Your task to perform on an android device: How do I get to the nearest Sprint Store? Image 0: 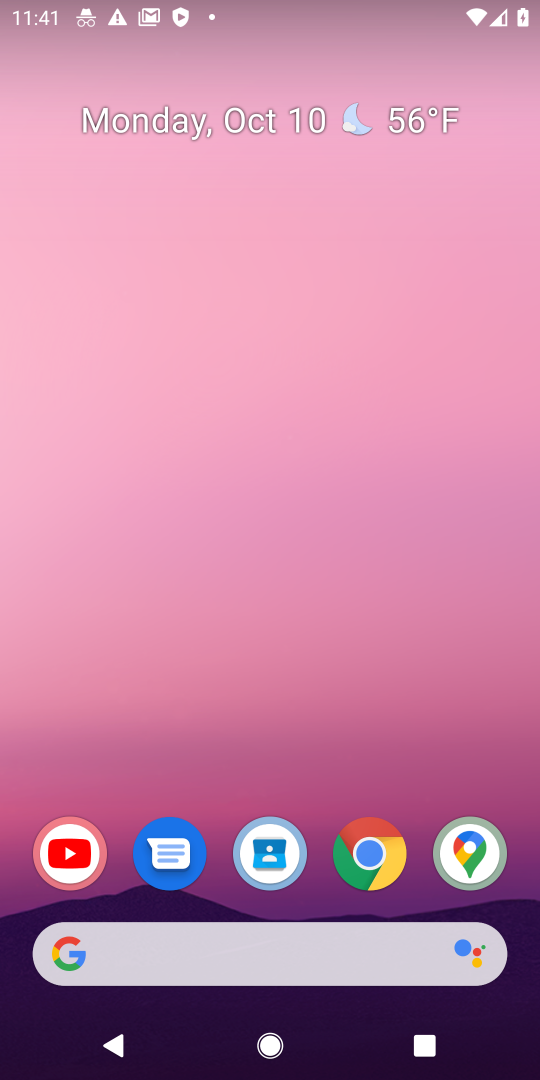
Step 0: click (272, 958)
Your task to perform on an android device: How do I get to the nearest Sprint Store? Image 1: 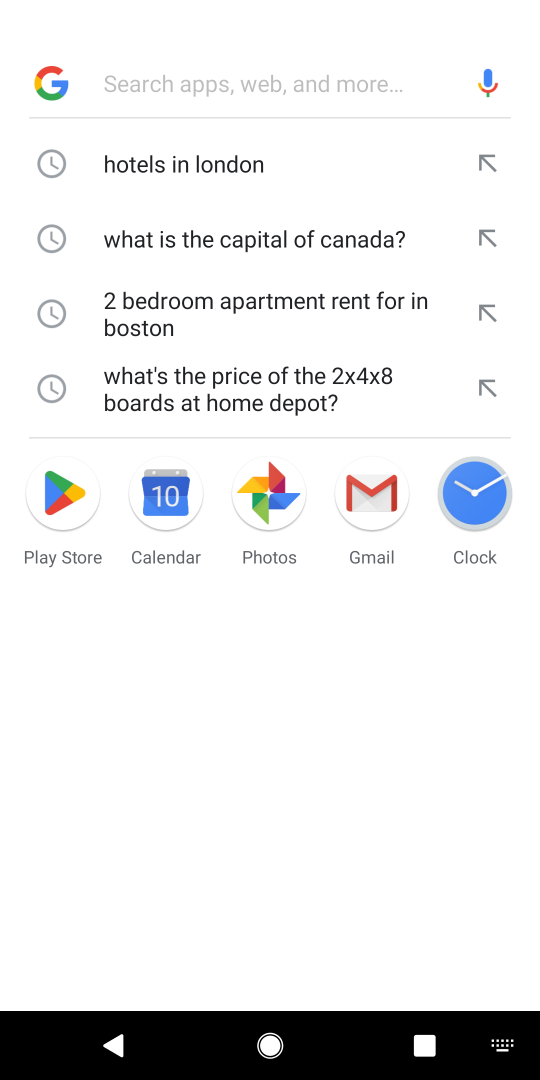
Step 1: type "How do I get to the nearest Sprint Store"
Your task to perform on an android device: How do I get to the nearest Sprint Store? Image 2: 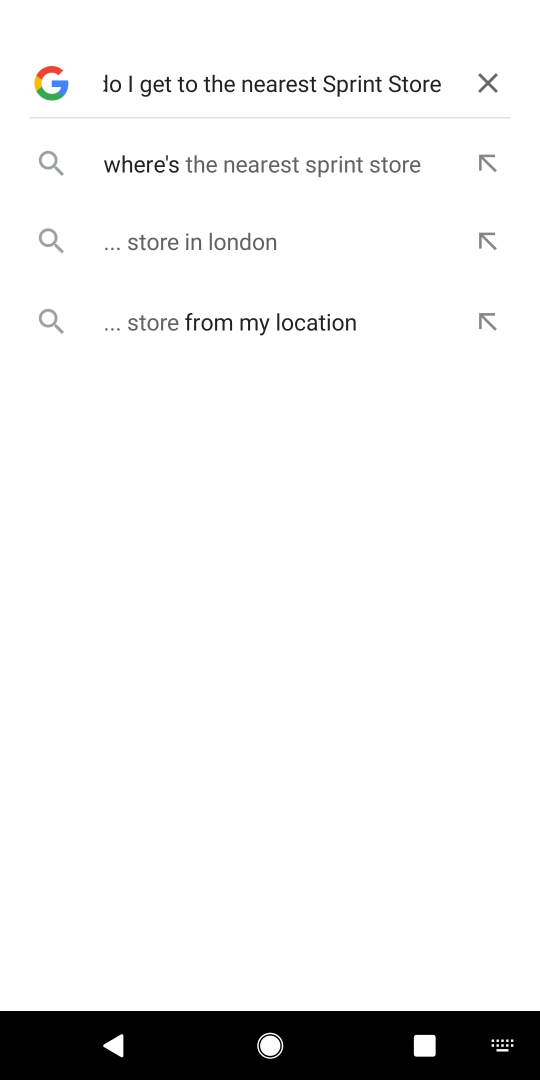
Step 2: press enter
Your task to perform on an android device: How do I get to the nearest Sprint Store? Image 3: 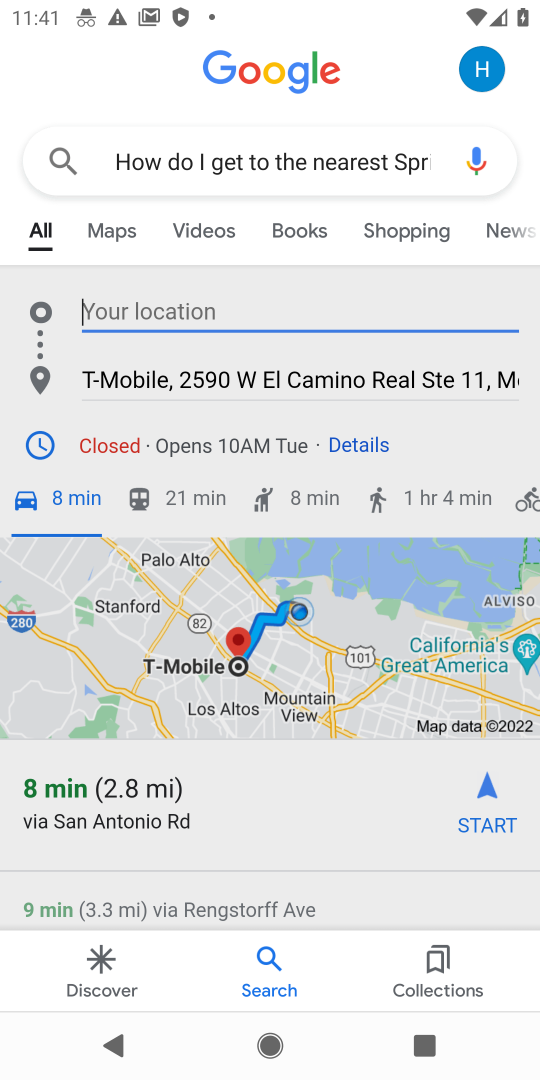
Step 3: task complete